Your task to perform on an android device: Go to location settings Image 0: 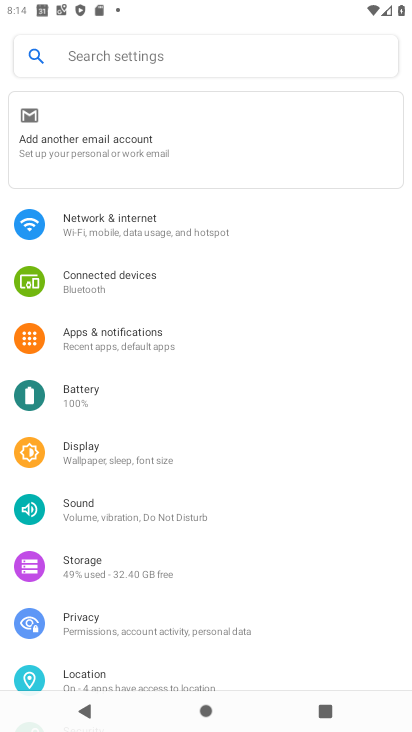
Step 0: click (93, 680)
Your task to perform on an android device: Go to location settings Image 1: 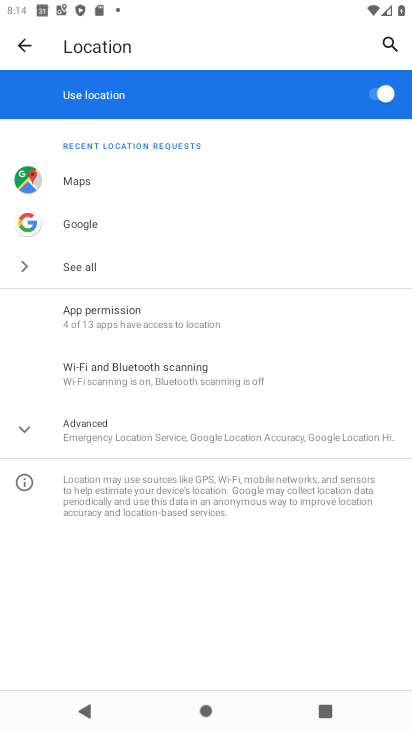
Step 1: task complete